Your task to perform on an android device: toggle javascript in the chrome app Image 0: 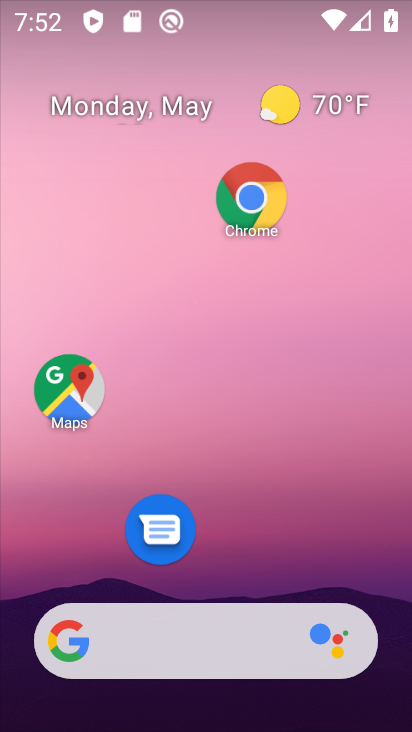
Step 0: click (247, 189)
Your task to perform on an android device: toggle javascript in the chrome app Image 1: 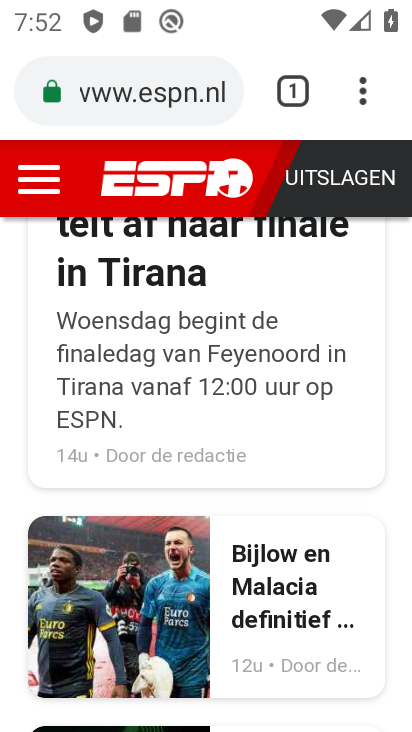
Step 1: click (357, 91)
Your task to perform on an android device: toggle javascript in the chrome app Image 2: 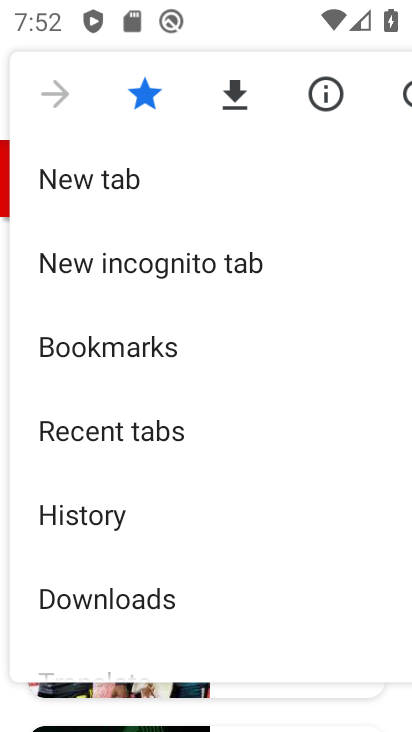
Step 2: drag from (197, 600) to (217, 151)
Your task to perform on an android device: toggle javascript in the chrome app Image 3: 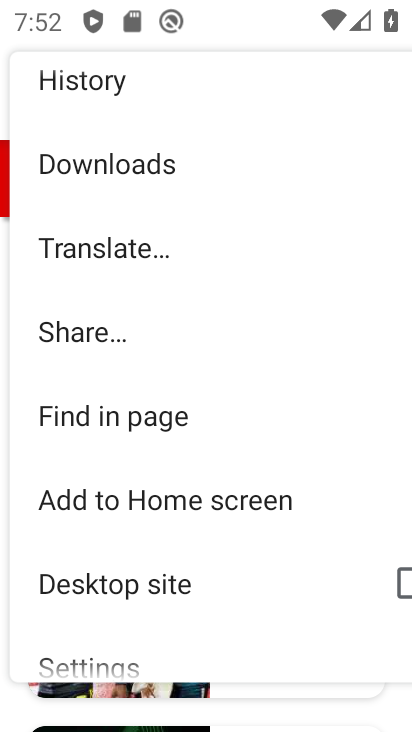
Step 3: drag from (199, 622) to (199, 96)
Your task to perform on an android device: toggle javascript in the chrome app Image 4: 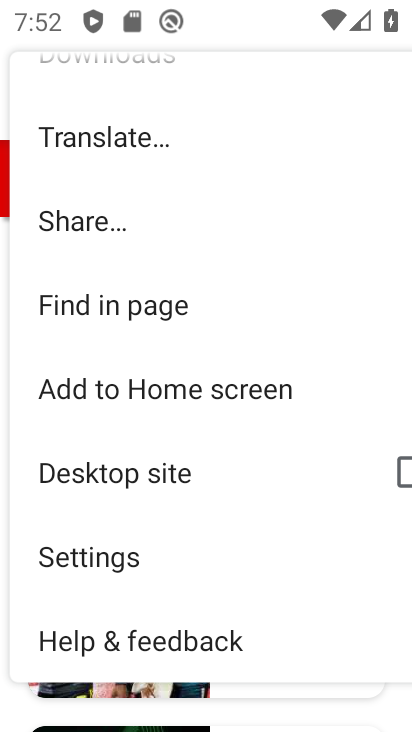
Step 4: click (147, 550)
Your task to perform on an android device: toggle javascript in the chrome app Image 5: 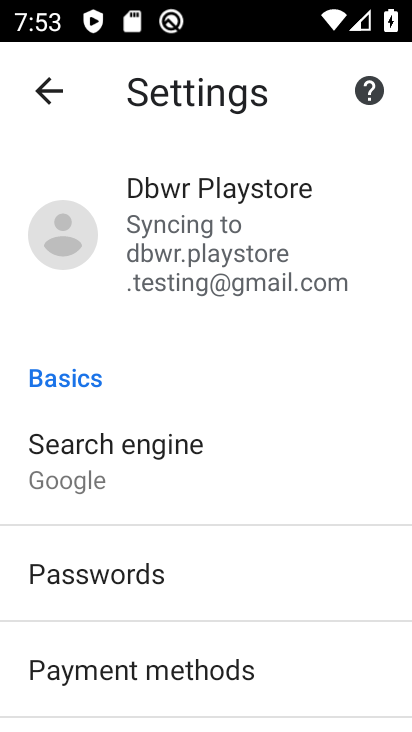
Step 5: drag from (211, 624) to (238, 29)
Your task to perform on an android device: toggle javascript in the chrome app Image 6: 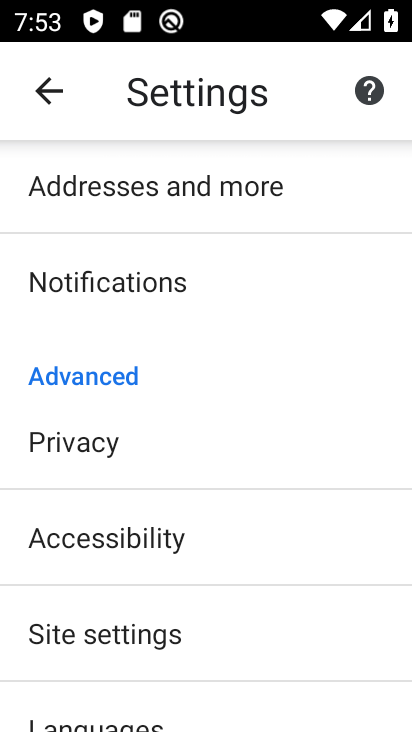
Step 6: click (196, 648)
Your task to perform on an android device: toggle javascript in the chrome app Image 7: 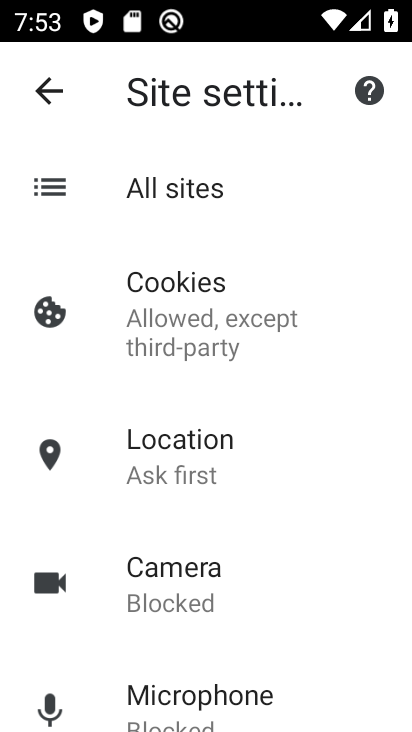
Step 7: drag from (260, 668) to (237, 205)
Your task to perform on an android device: toggle javascript in the chrome app Image 8: 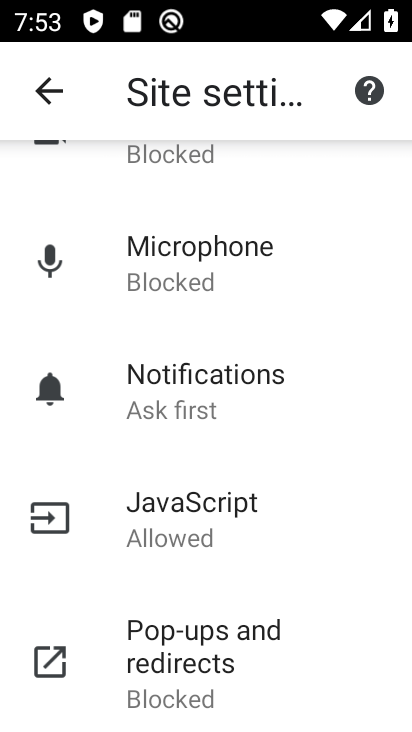
Step 8: click (223, 511)
Your task to perform on an android device: toggle javascript in the chrome app Image 9: 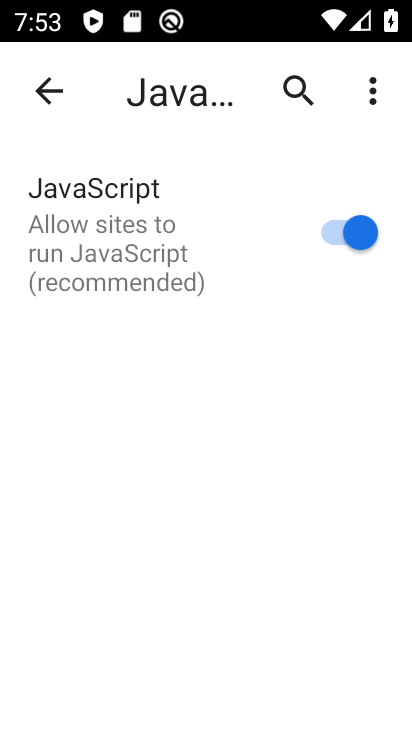
Step 9: click (339, 238)
Your task to perform on an android device: toggle javascript in the chrome app Image 10: 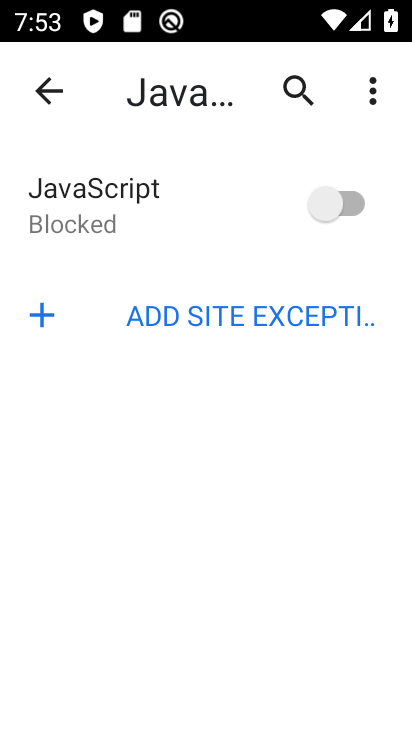
Step 10: task complete